Your task to perform on an android device: What is the recent news? Image 0: 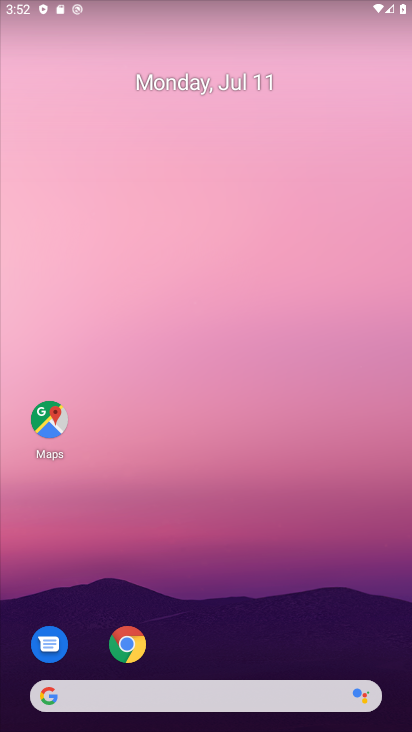
Step 0: press home button
Your task to perform on an android device: What is the recent news? Image 1: 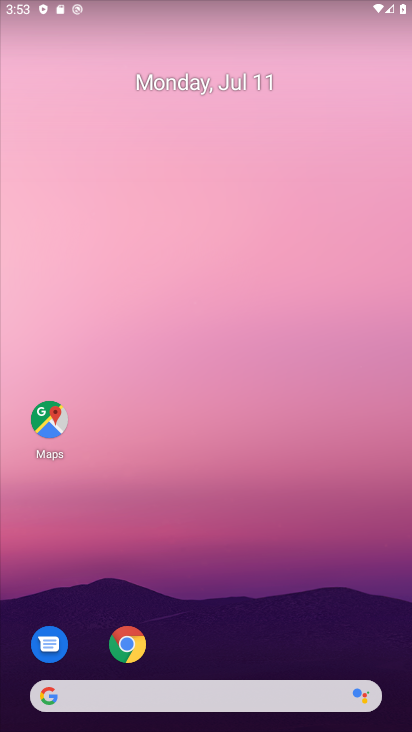
Step 1: task complete